Your task to perform on an android device: What is the news today? Image 0: 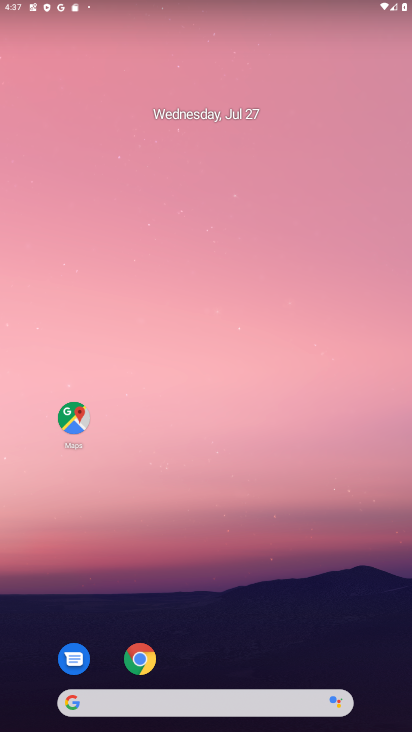
Step 0: click (143, 654)
Your task to perform on an android device: What is the news today? Image 1: 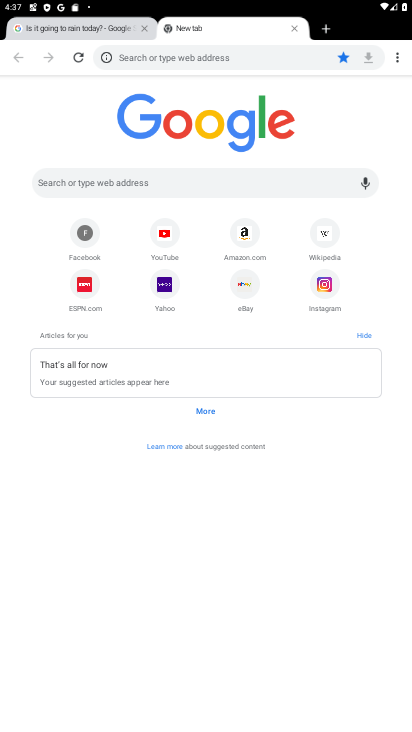
Step 1: click (205, 63)
Your task to perform on an android device: What is the news today? Image 2: 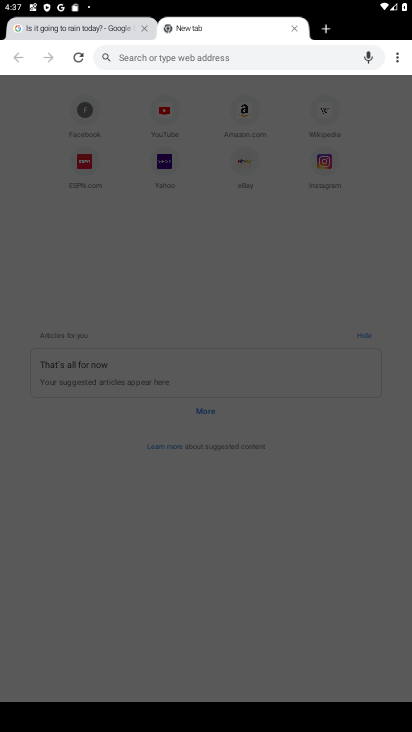
Step 2: type "What is the news today?"
Your task to perform on an android device: What is the news today? Image 3: 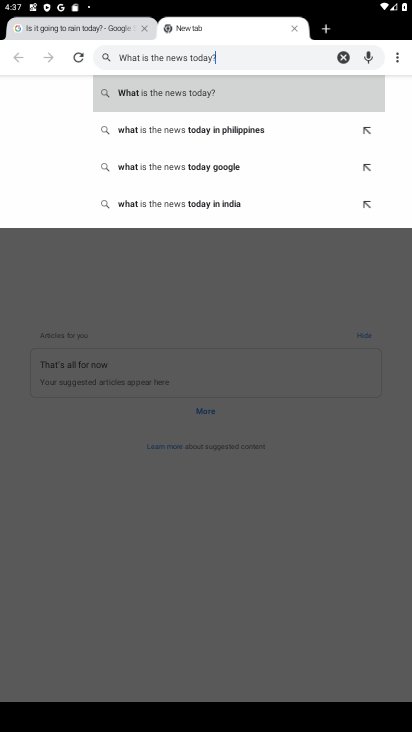
Step 3: click (317, 95)
Your task to perform on an android device: What is the news today? Image 4: 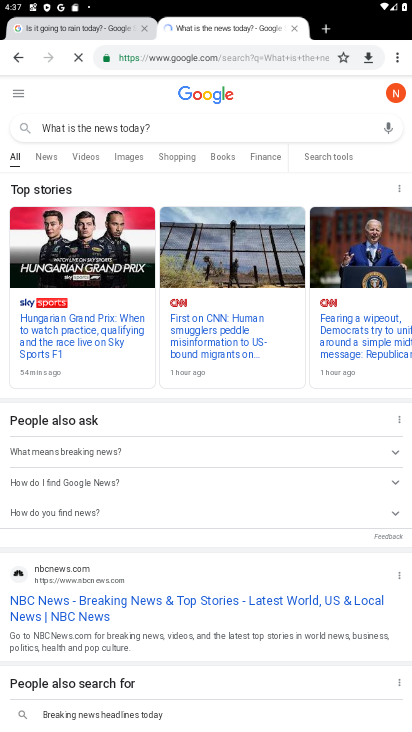
Step 4: task complete